Your task to perform on an android device: stop showing notifications on the lock screen Image 0: 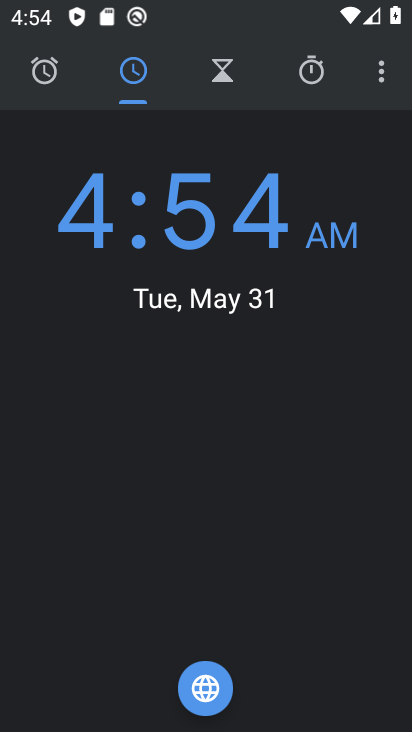
Step 0: press back button
Your task to perform on an android device: stop showing notifications on the lock screen Image 1: 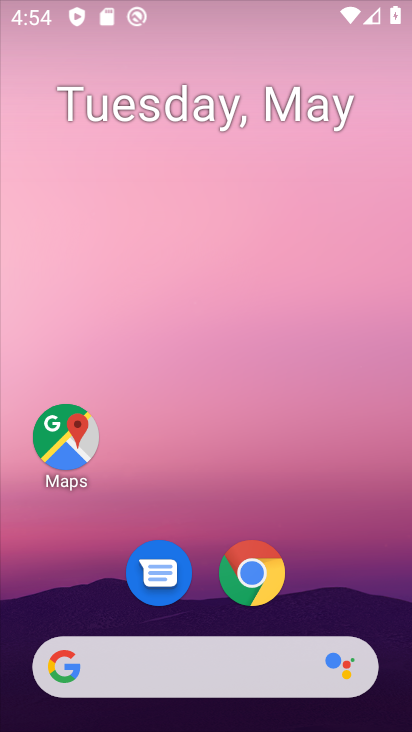
Step 1: drag from (231, 524) to (237, 91)
Your task to perform on an android device: stop showing notifications on the lock screen Image 2: 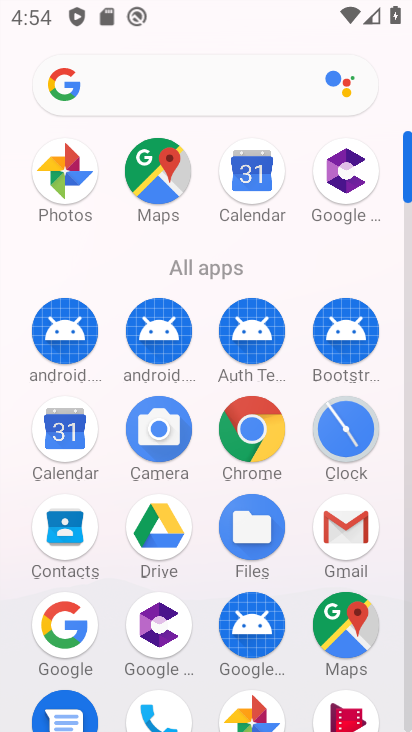
Step 2: drag from (219, 594) to (264, 84)
Your task to perform on an android device: stop showing notifications on the lock screen Image 3: 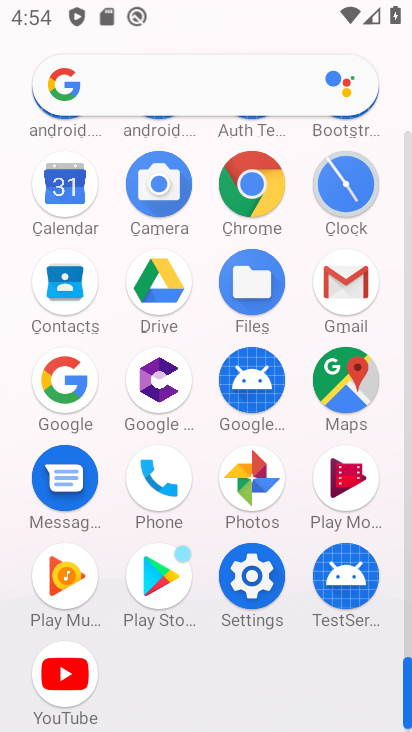
Step 3: click (257, 584)
Your task to perform on an android device: stop showing notifications on the lock screen Image 4: 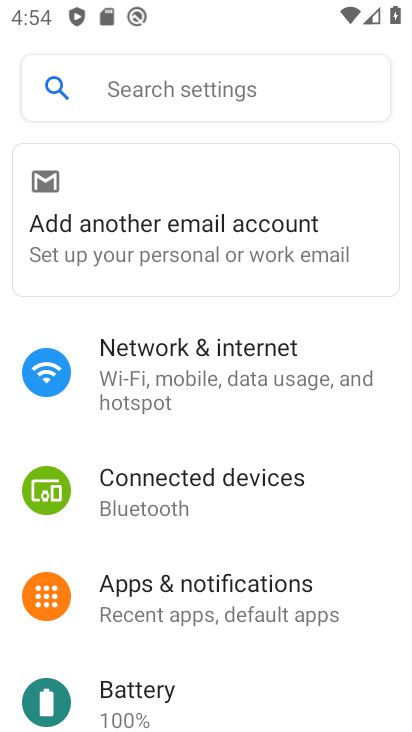
Step 4: click (206, 589)
Your task to perform on an android device: stop showing notifications on the lock screen Image 5: 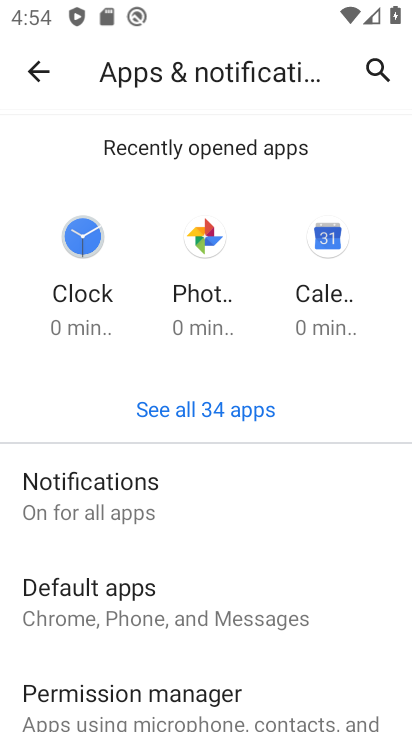
Step 5: click (175, 499)
Your task to perform on an android device: stop showing notifications on the lock screen Image 6: 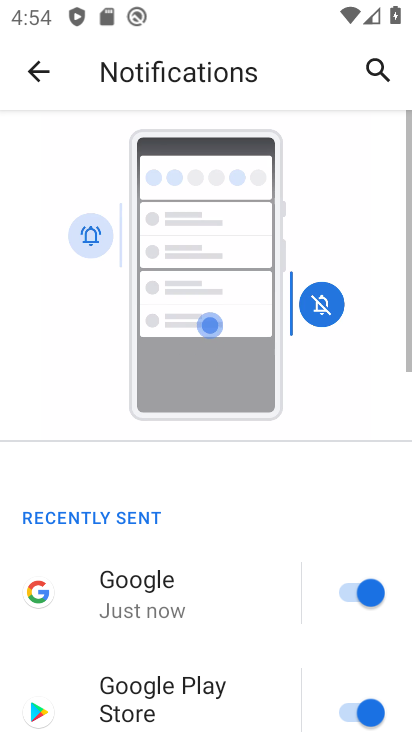
Step 6: drag from (205, 682) to (290, 147)
Your task to perform on an android device: stop showing notifications on the lock screen Image 7: 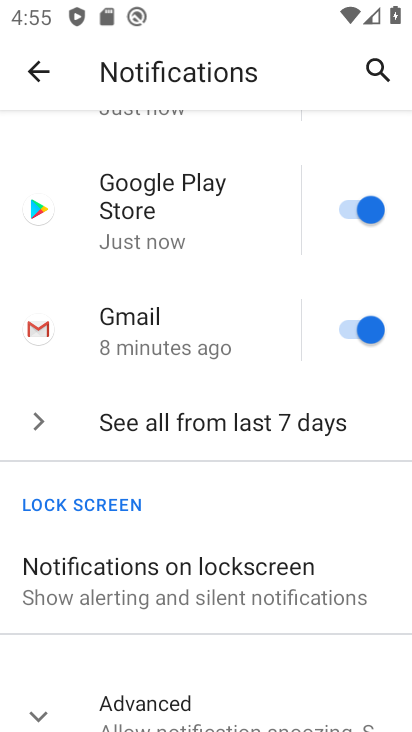
Step 7: click (210, 592)
Your task to perform on an android device: stop showing notifications on the lock screen Image 8: 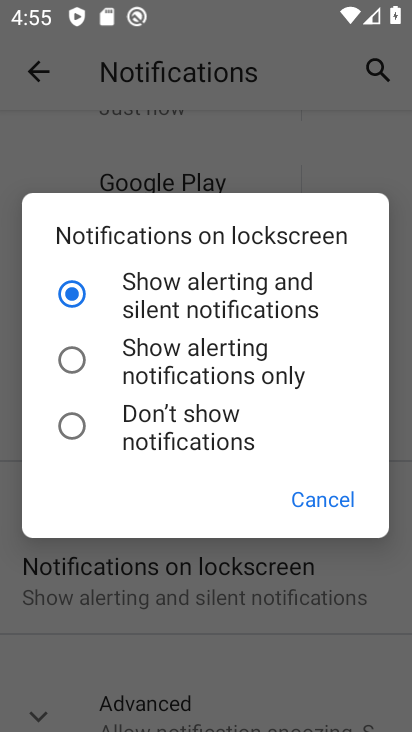
Step 8: click (51, 432)
Your task to perform on an android device: stop showing notifications on the lock screen Image 9: 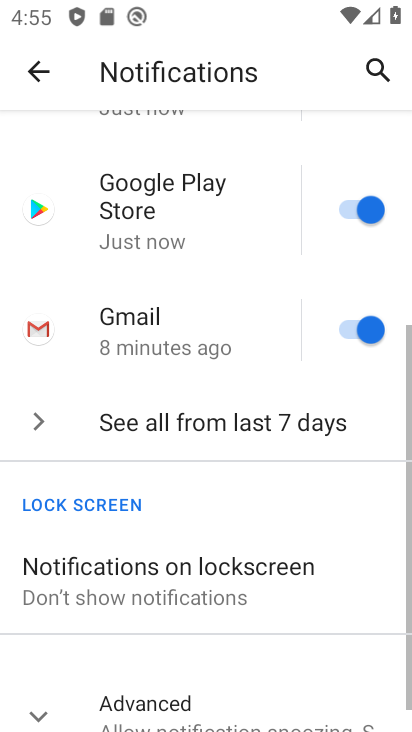
Step 9: task complete